Your task to perform on an android device: Open Google Maps Image 0: 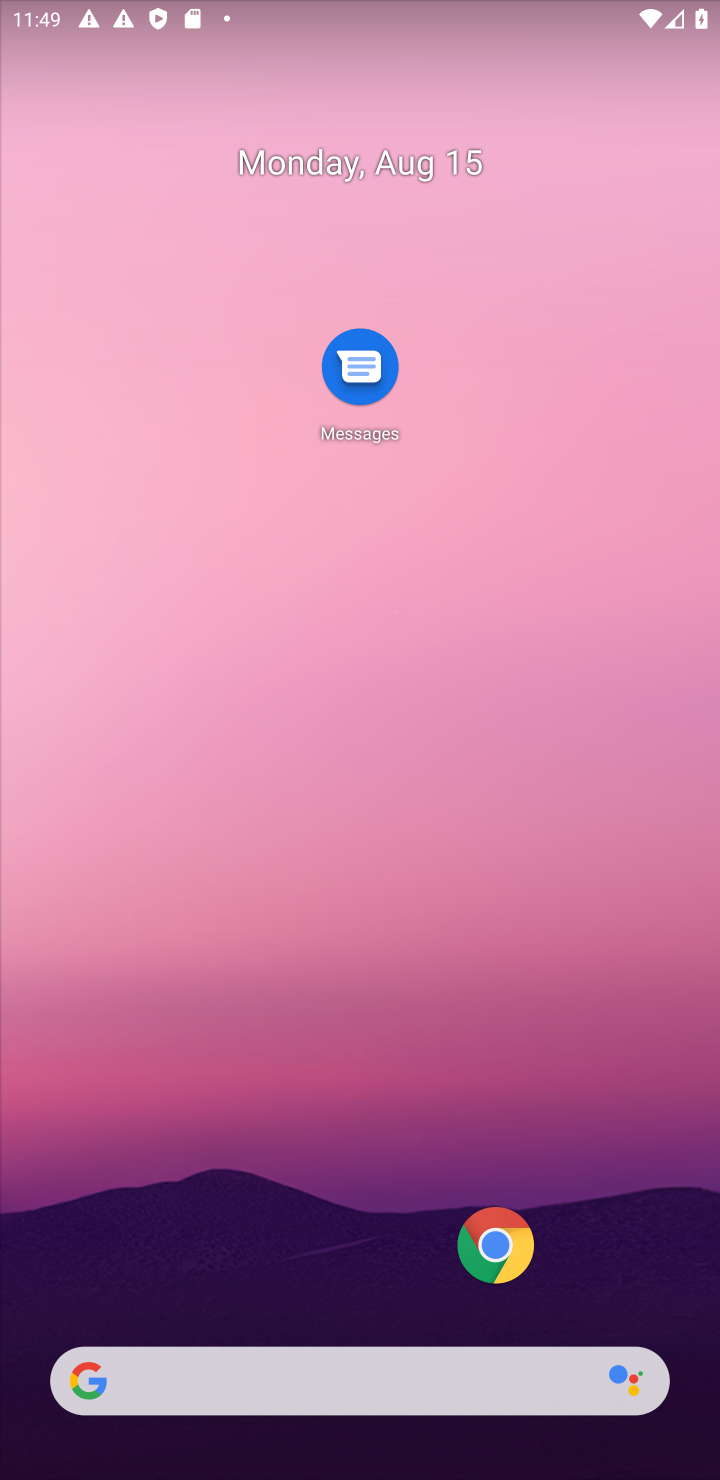
Step 0: drag from (245, 1025) to (285, 389)
Your task to perform on an android device: Open Google Maps Image 1: 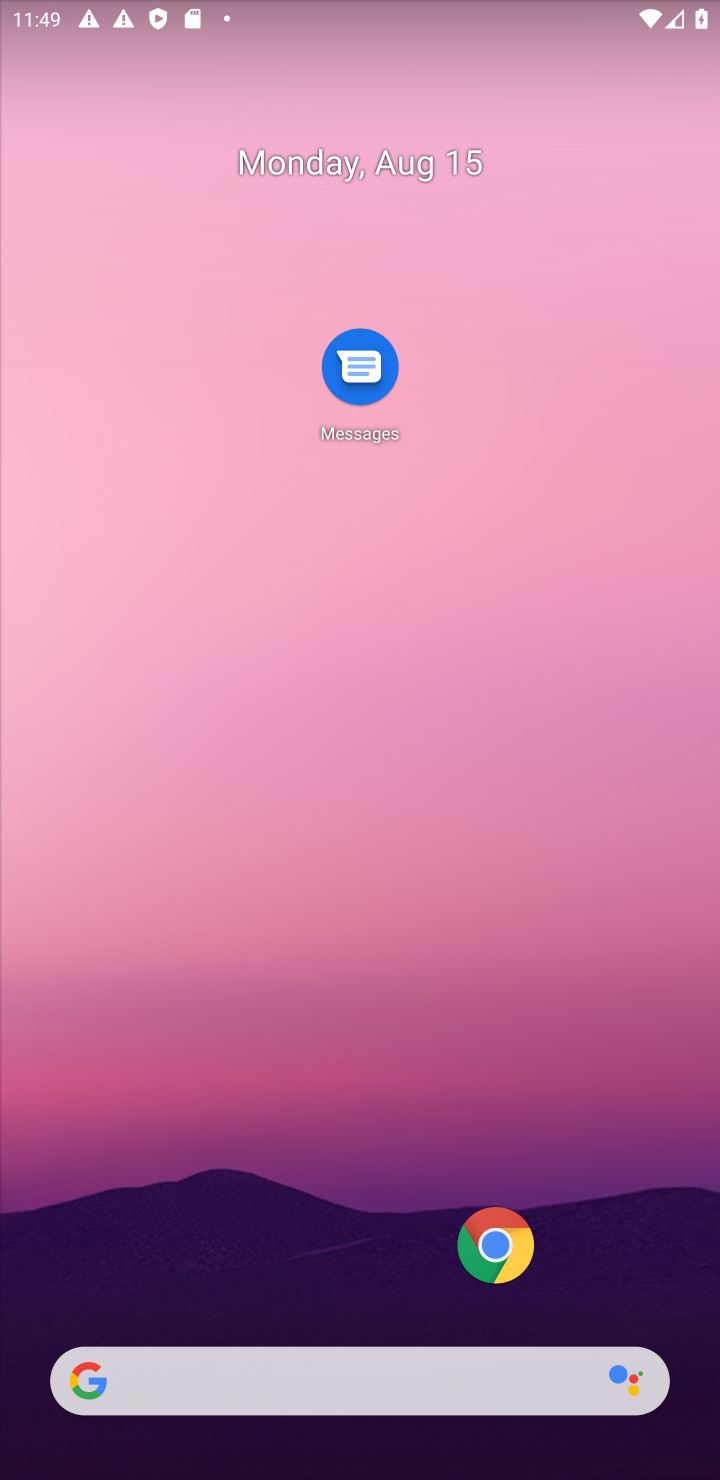
Step 1: drag from (333, 1172) to (381, 403)
Your task to perform on an android device: Open Google Maps Image 2: 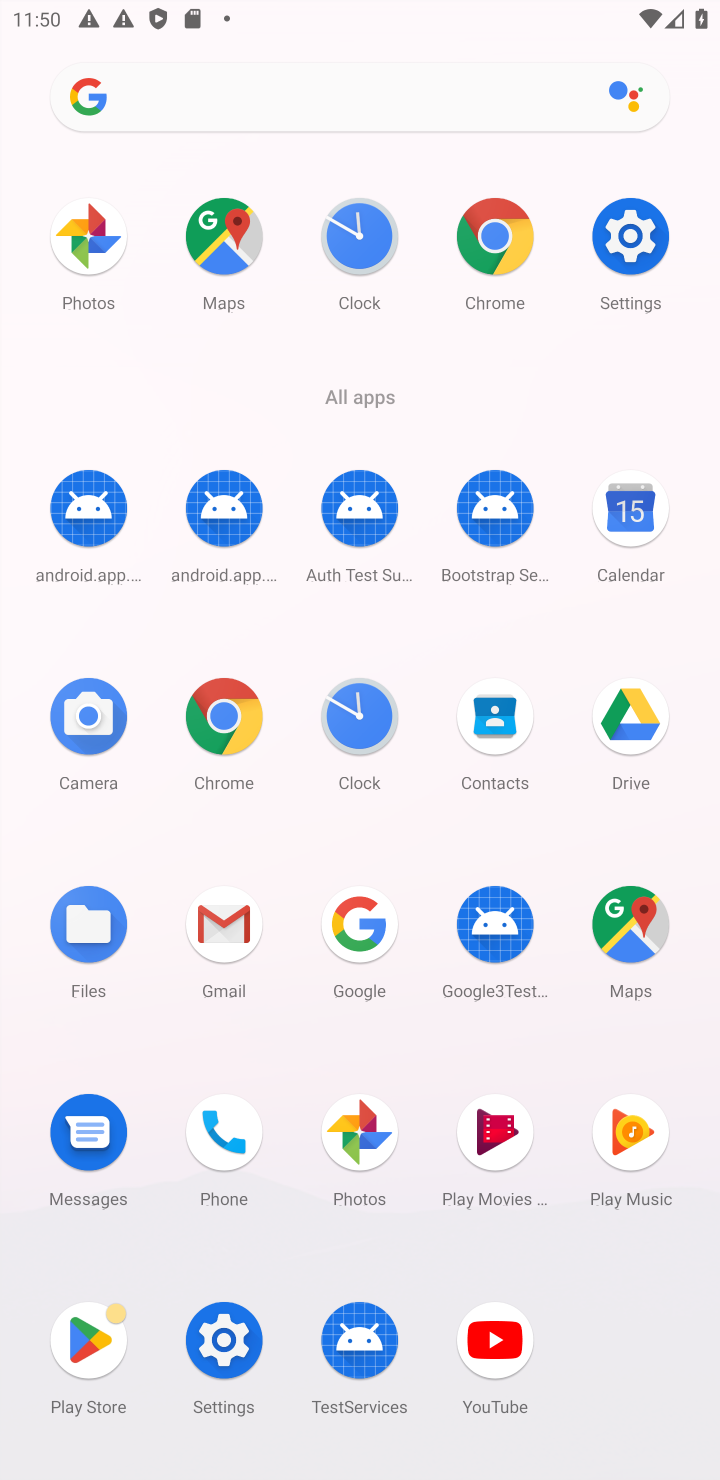
Step 2: click (633, 900)
Your task to perform on an android device: Open Google Maps Image 3: 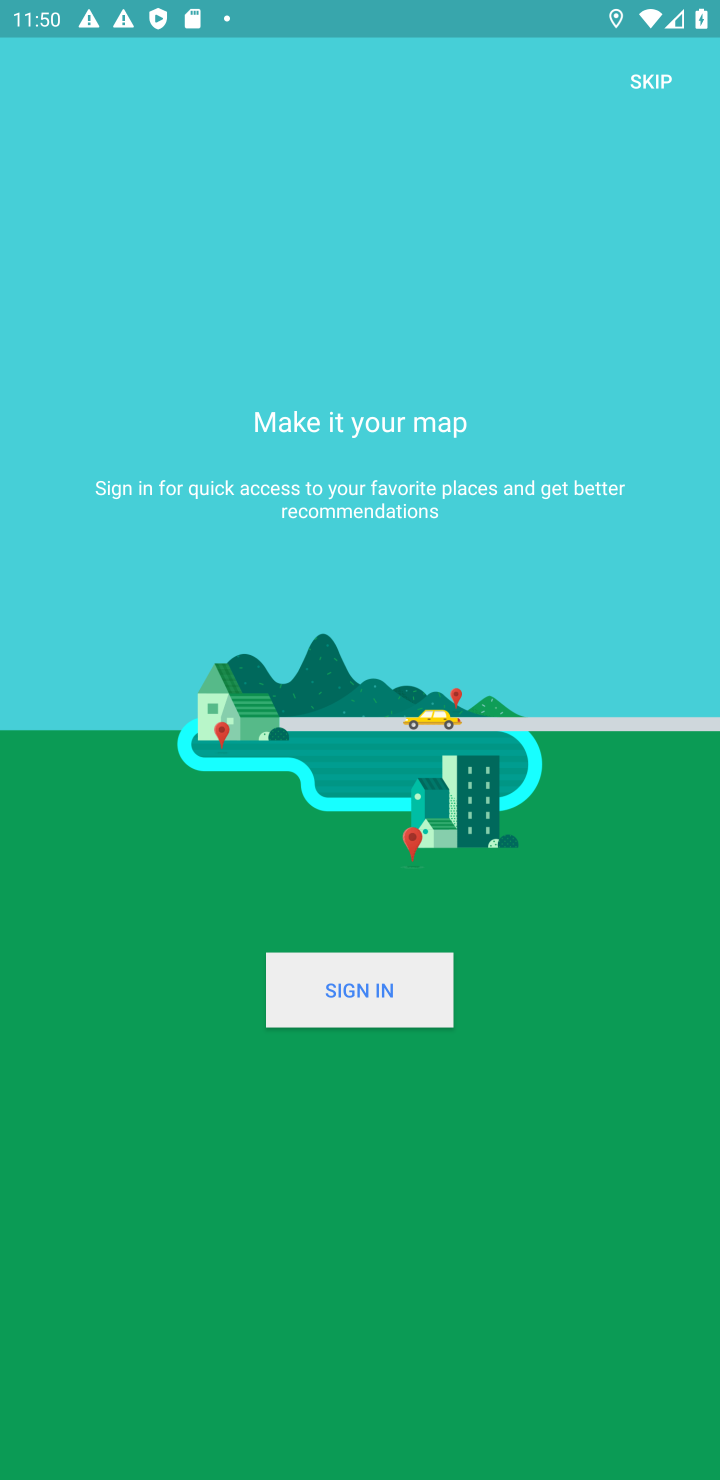
Step 3: click (357, 989)
Your task to perform on an android device: Open Google Maps Image 4: 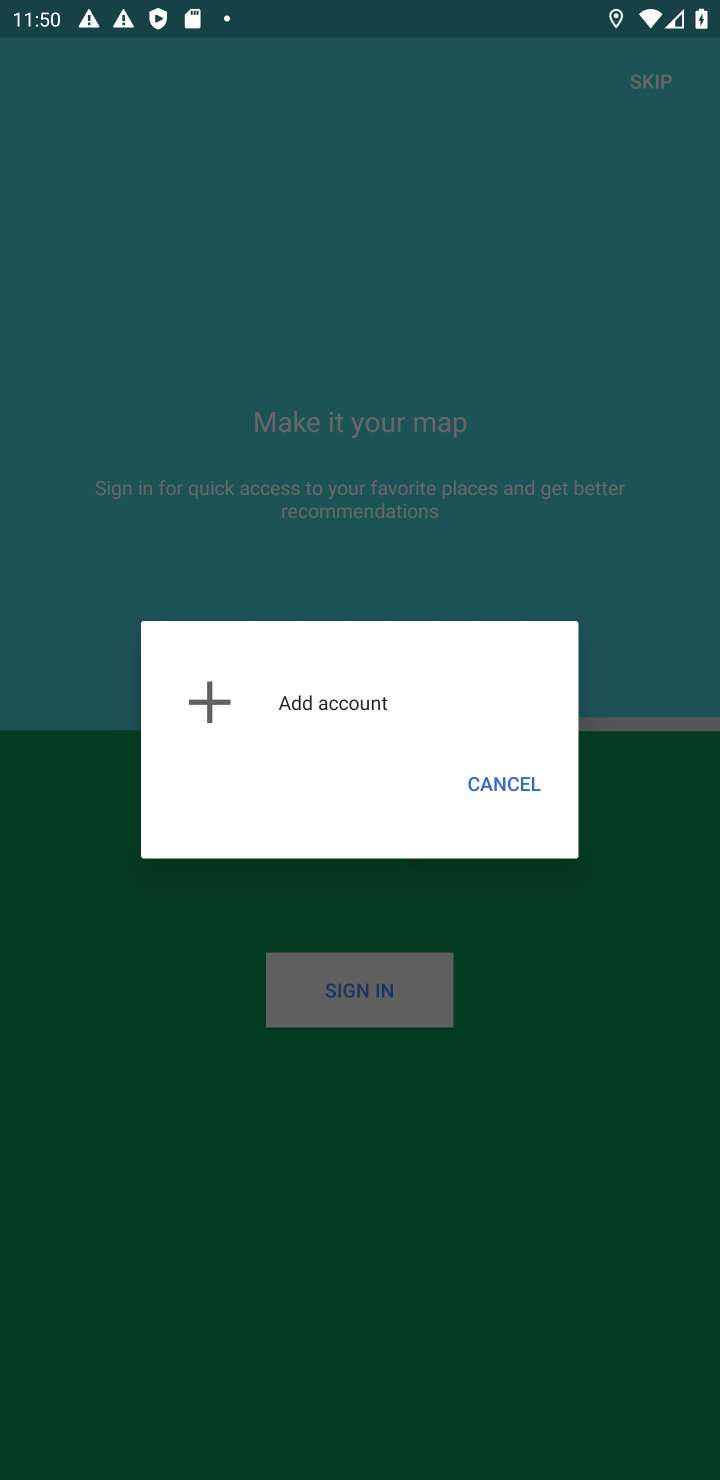
Step 4: task complete